Your task to perform on an android device: change timer sound Image 0: 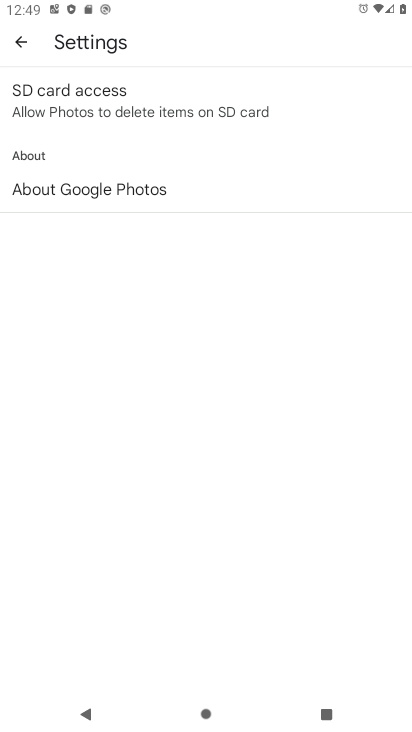
Step 0: click (121, 627)
Your task to perform on an android device: change timer sound Image 1: 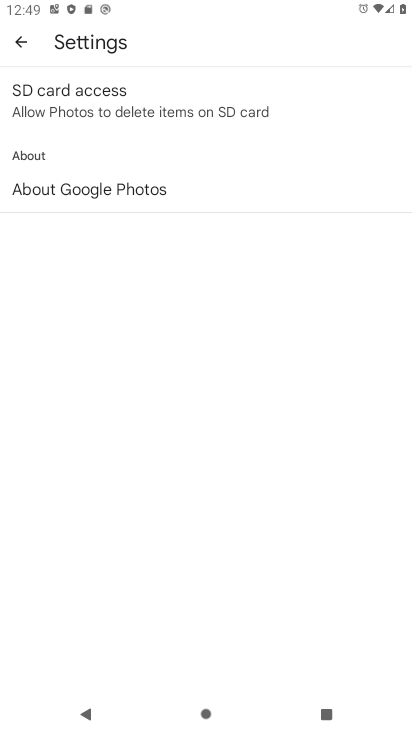
Step 1: press home button
Your task to perform on an android device: change timer sound Image 2: 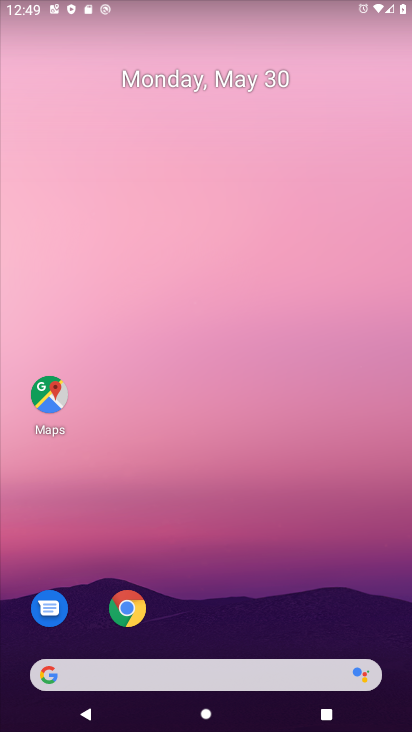
Step 2: drag from (210, 604) to (165, 173)
Your task to perform on an android device: change timer sound Image 3: 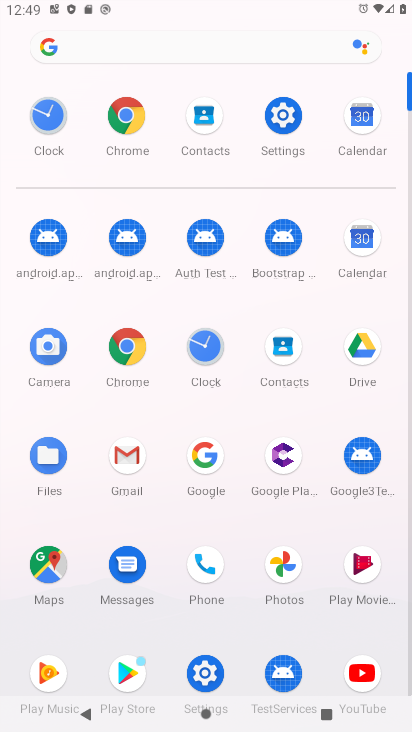
Step 3: click (202, 339)
Your task to perform on an android device: change timer sound Image 4: 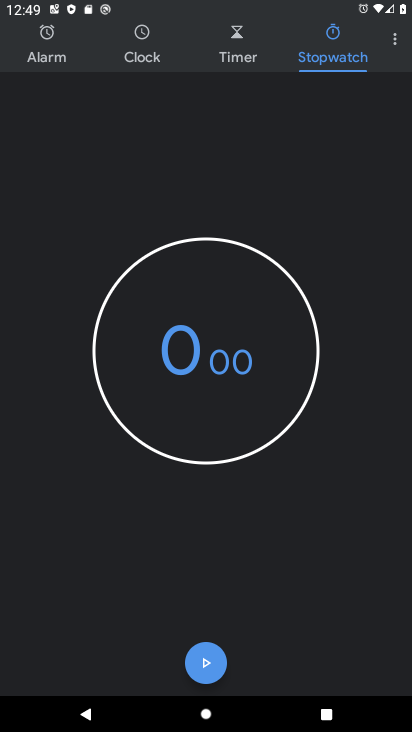
Step 4: click (388, 32)
Your task to perform on an android device: change timer sound Image 5: 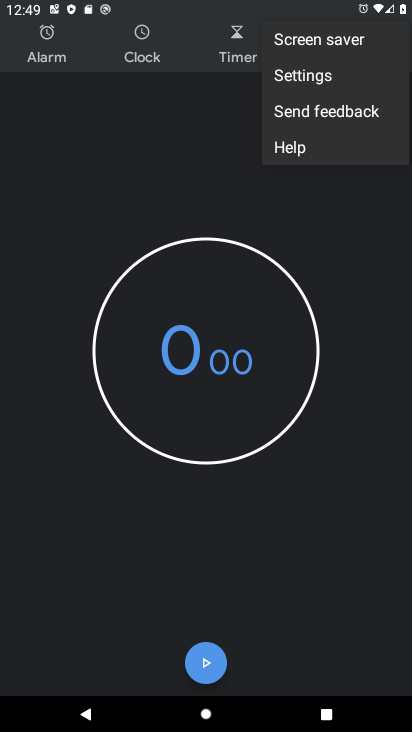
Step 5: click (296, 85)
Your task to perform on an android device: change timer sound Image 6: 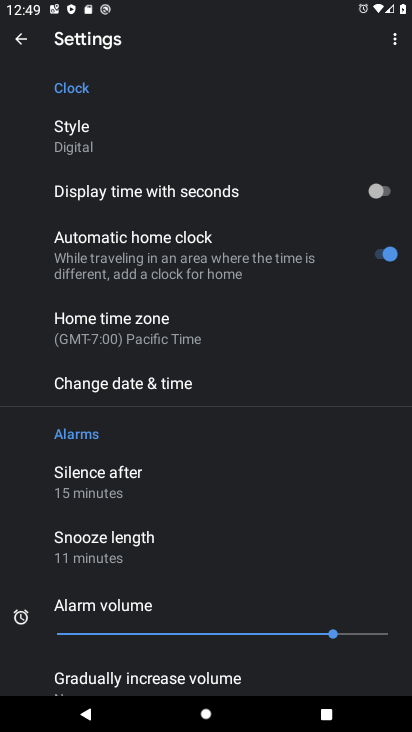
Step 6: click (73, 152)
Your task to perform on an android device: change timer sound Image 7: 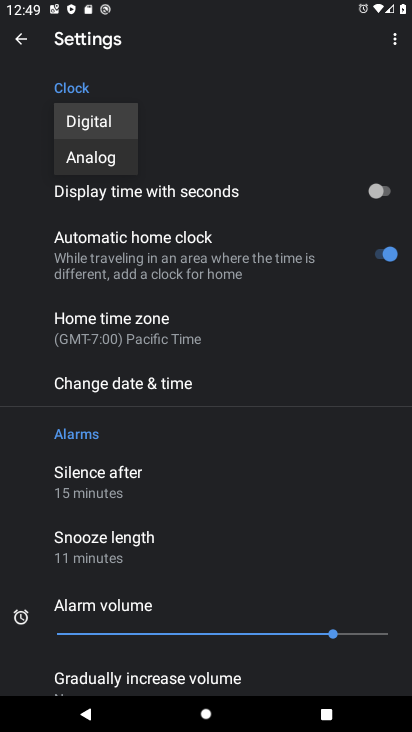
Step 7: drag from (170, 542) to (182, 177)
Your task to perform on an android device: change timer sound Image 8: 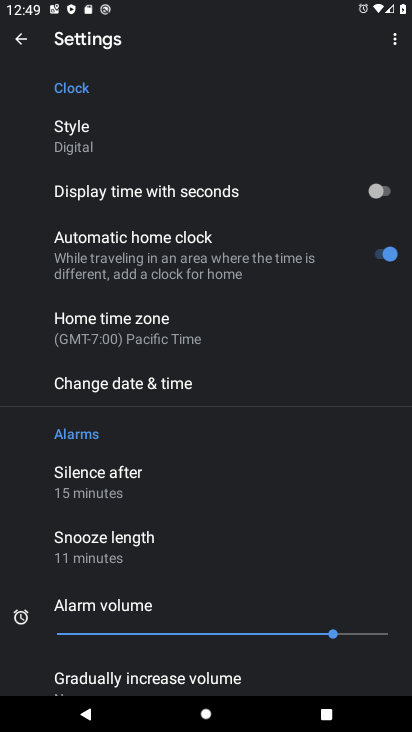
Step 8: drag from (130, 593) to (114, 190)
Your task to perform on an android device: change timer sound Image 9: 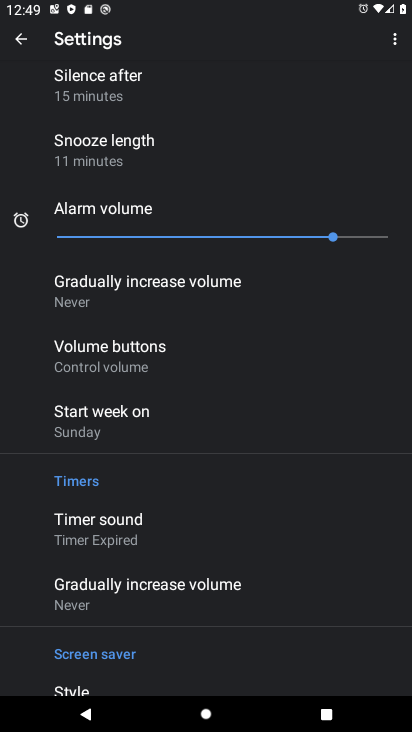
Step 9: click (54, 525)
Your task to perform on an android device: change timer sound Image 10: 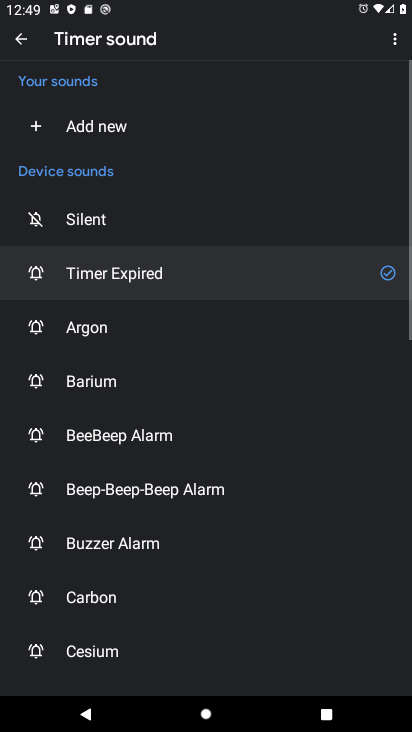
Step 10: click (95, 319)
Your task to perform on an android device: change timer sound Image 11: 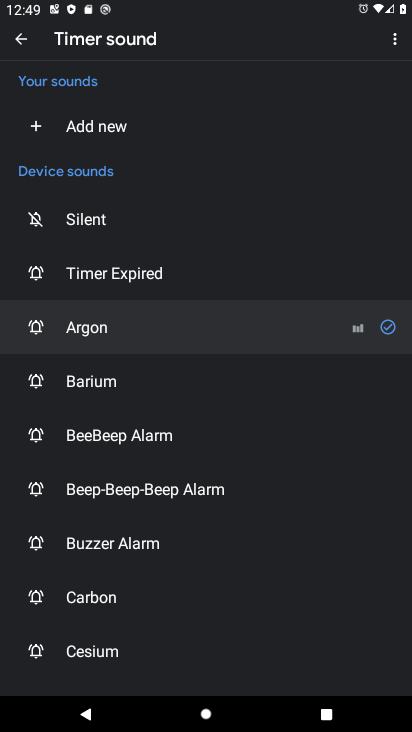
Step 11: task complete